Your task to perform on an android device: Empty the shopping cart on newegg. Search for usb-a on newegg, select the first entry, and add it to the cart. Image 0: 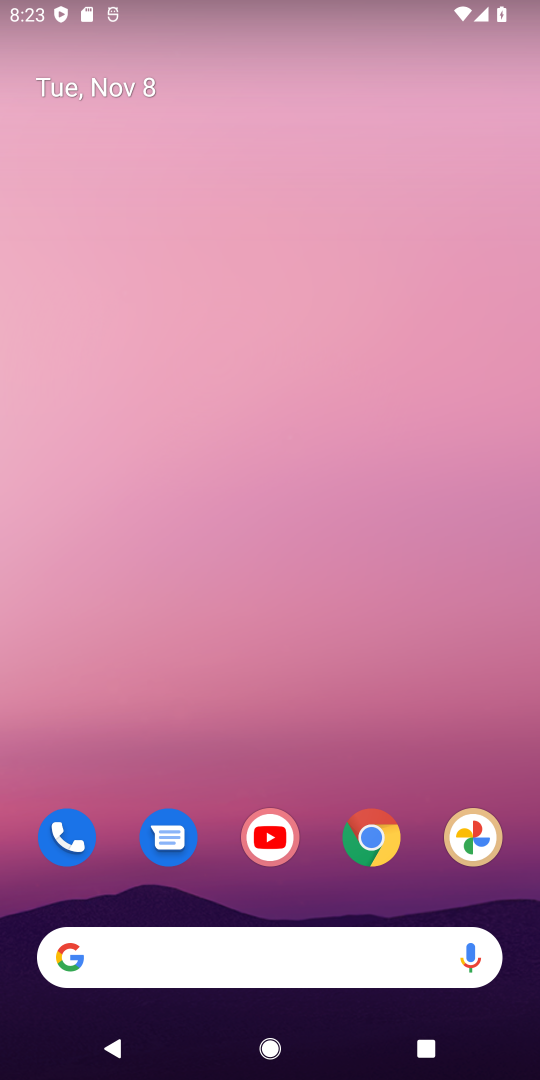
Step 0: click (371, 847)
Your task to perform on an android device: Empty the shopping cart on newegg. Search for usb-a on newegg, select the first entry, and add it to the cart. Image 1: 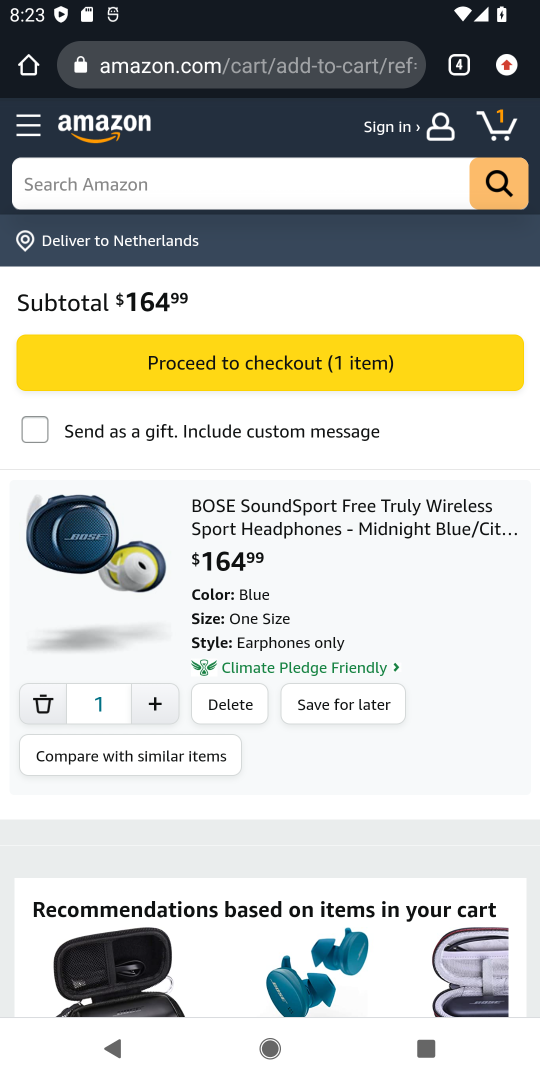
Step 1: click (459, 53)
Your task to perform on an android device: Empty the shopping cart on newegg. Search for usb-a on newegg, select the first entry, and add it to the cart. Image 2: 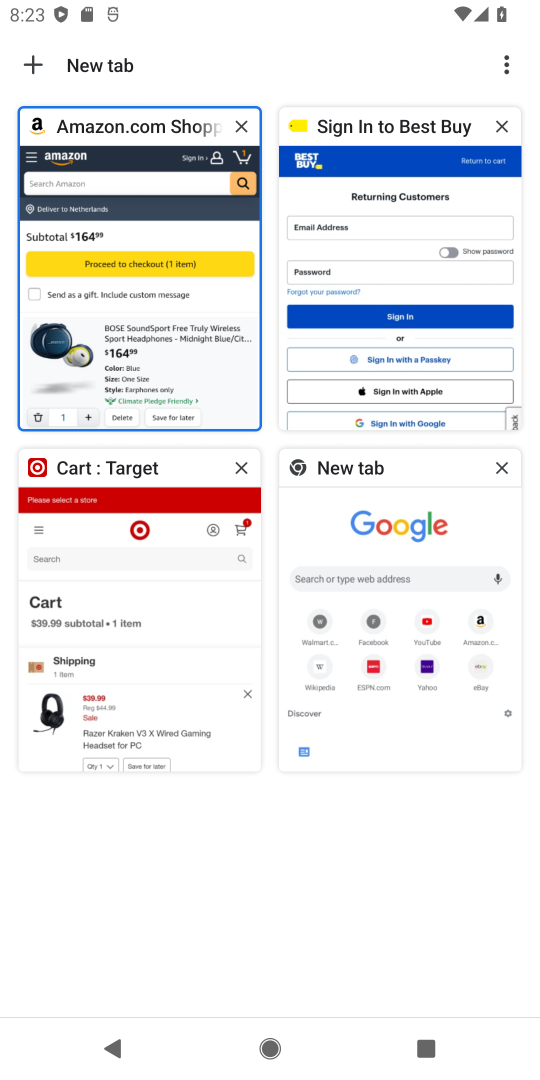
Step 2: click (347, 617)
Your task to perform on an android device: Empty the shopping cart on newegg. Search for usb-a on newegg, select the first entry, and add it to the cart. Image 3: 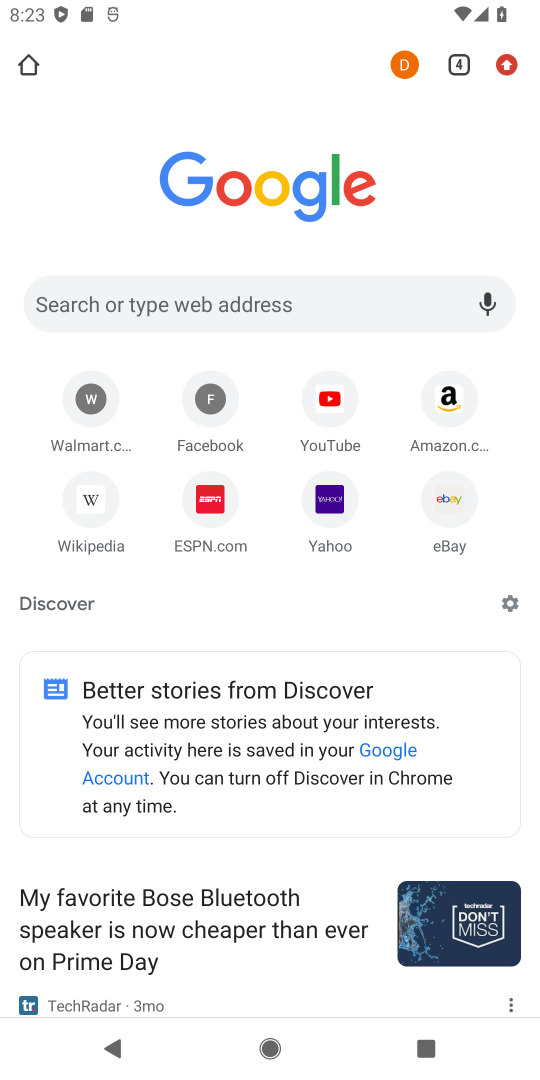
Step 3: click (328, 296)
Your task to perform on an android device: Empty the shopping cart on newegg. Search for usb-a on newegg, select the first entry, and add it to the cart. Image 4: 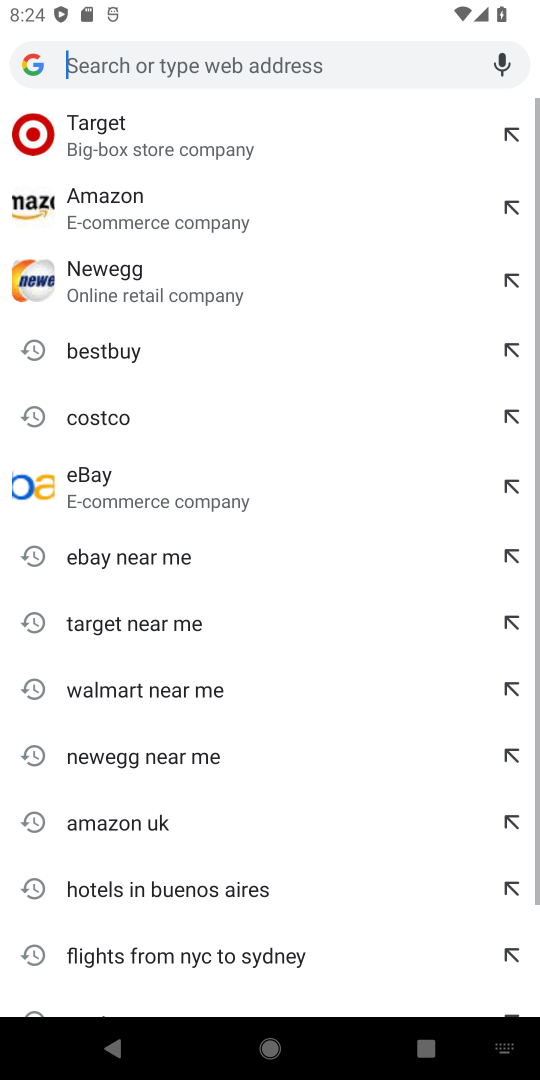
Step 4: click (90, 291)
Your task to perform on an android device: Empty the shopping cart on newegg. Search for usb-a on newegg, select the first entry, and add it to the cart. Image 5: 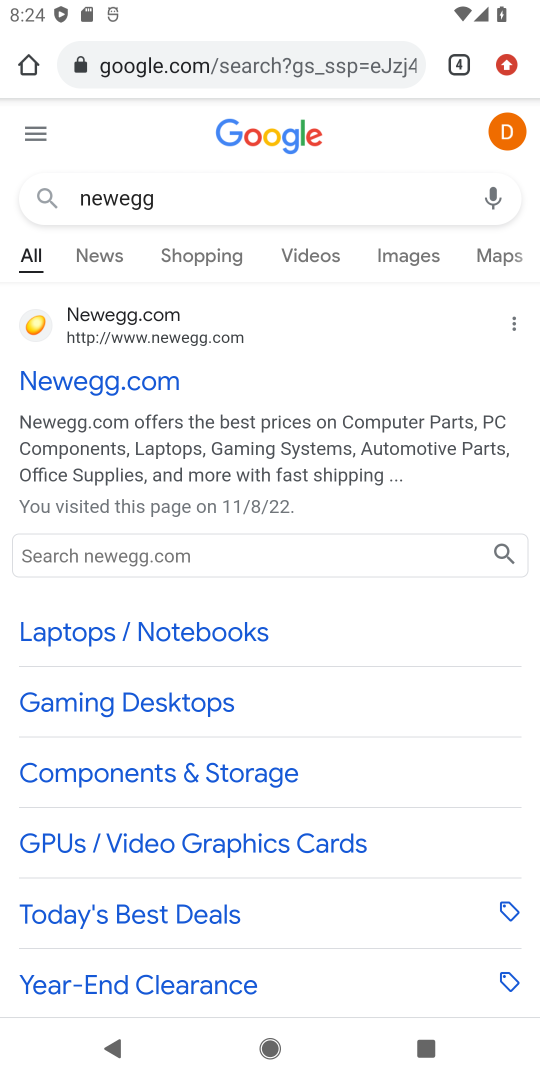
Step 5: click (36, 547)
Your task to perform on an android device: Empty the shopping cart on newegg. Search for usb-a on newegg, select the first entry, and add it to the cart. Image 6: 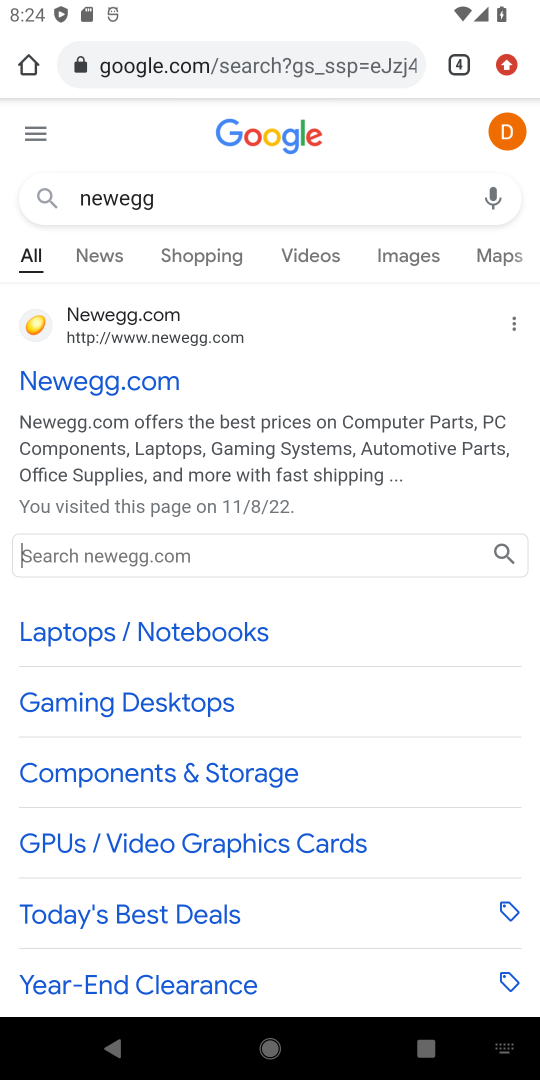
Step 6: type "usb-a"
Your task to perform on an android device: Empty the shopping cart on newegg. Search for usb-a on newegg, select the first entry, and add it to the cart. Image 7: 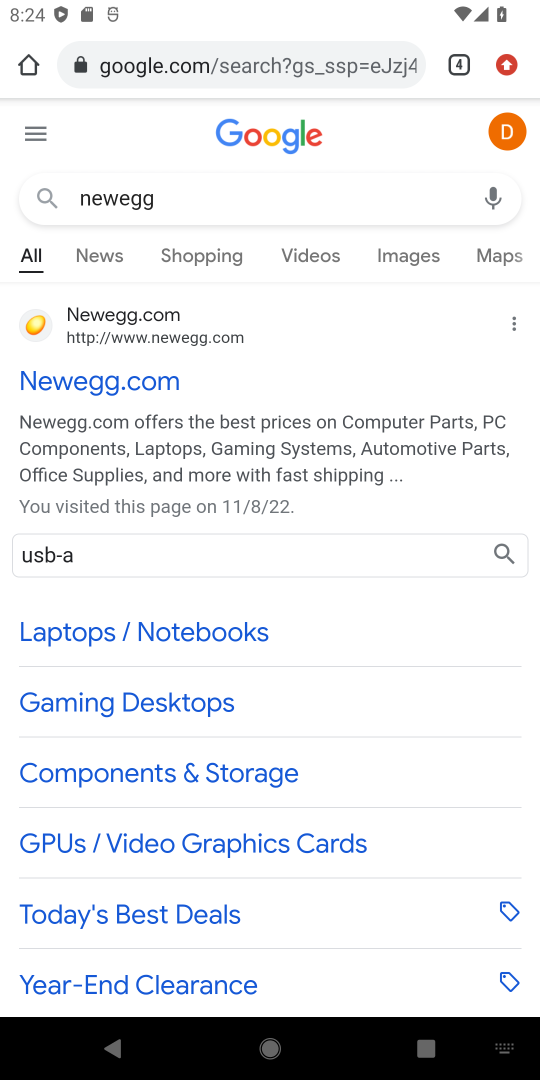
Step 7: click (504, 554)
Your task to perform on an android device: Empty the shopping cart on newegg. Search for usb-a on newegg, select the first entry, and add it to the cart. Image 8: 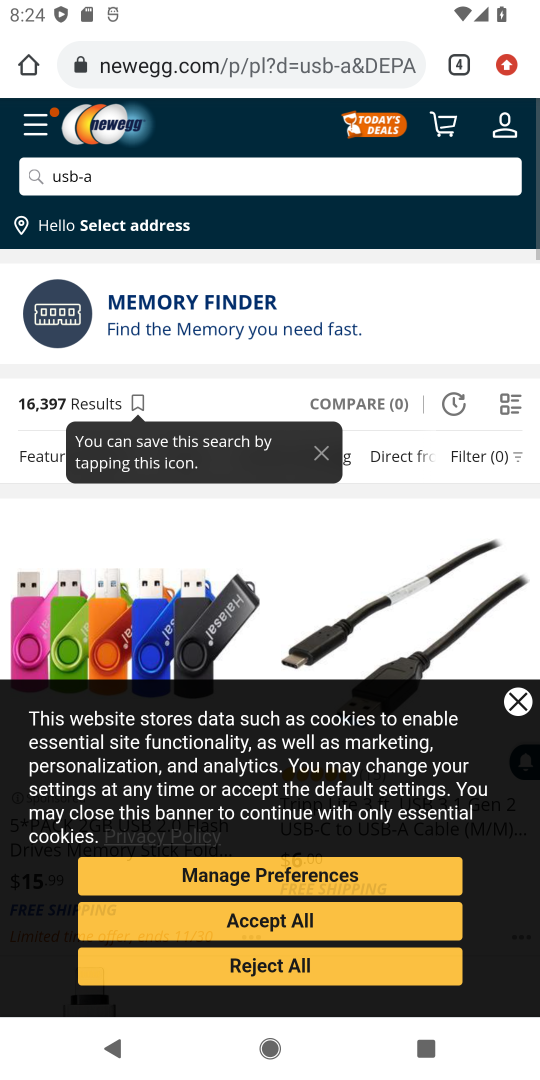
Step 8: click (181, 835)
Your task to perform on an android device: Empty the shopping cart on newegg. Search for usb-a on newegg, select the first entry, and add it to the cart. Image 9: 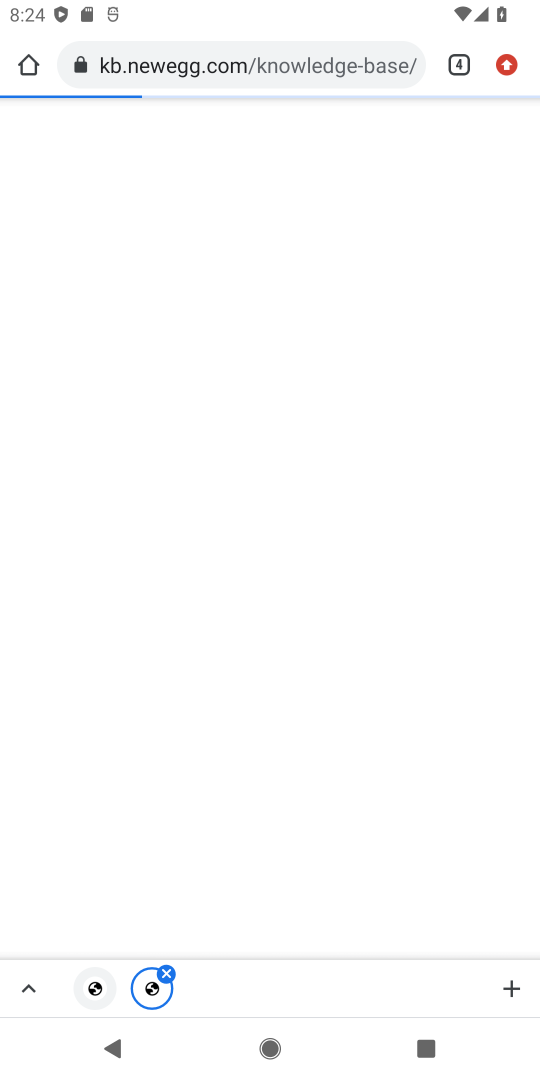
Step 9: click (515, 704)
Your task to perform on an android device: Empty the shopping cart on newegg. Search for usb-a on newegg, select the first entry, and add it to the cart. Image 10: 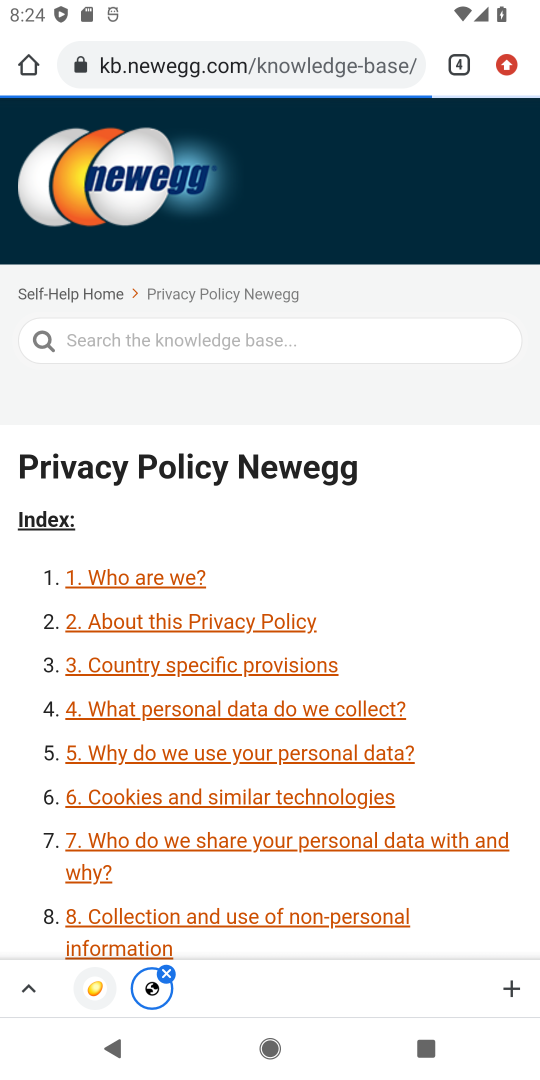
Step 10: press back button
Your task to perform on an android device: Empty the shopping cart on newegg. Search for usb-a on newegg, select the first entry, and add it to the cart. Image 11: 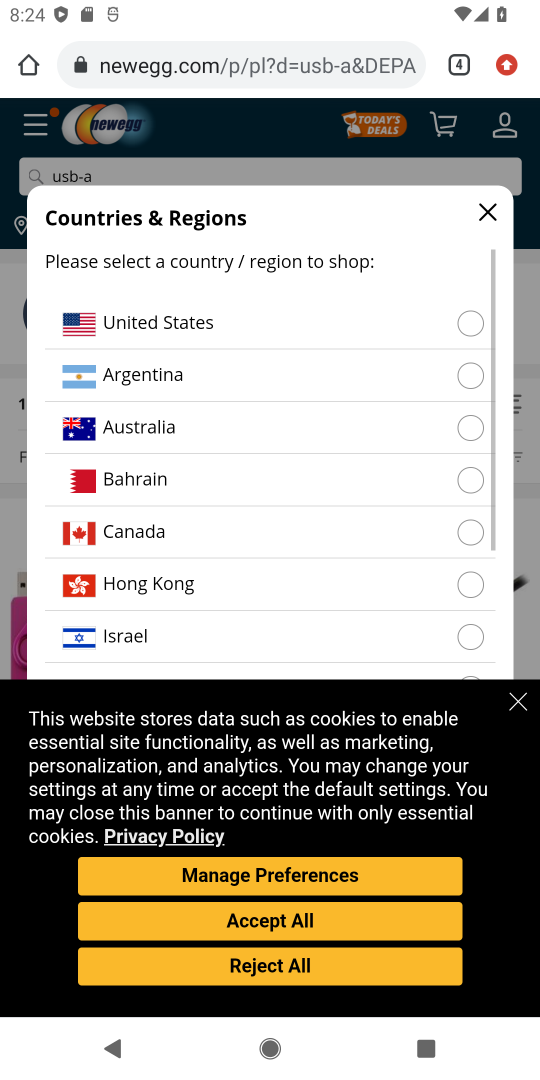
Step 11: click (331, 928)
Your task to perform on an android device: Empty the shopping cart on newegg. Search for usb-a on newegg, select the first entry, and add it to the cart. Image 12: 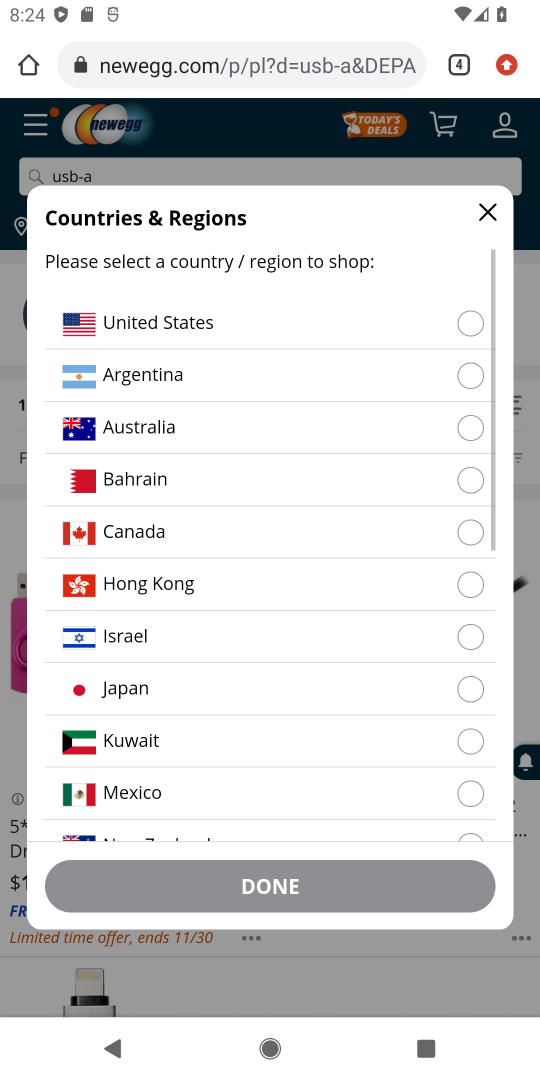
Step 12: click (471, 318)
Your task to perform on an android device: Empty the shopping cart on newegg. Search for usb-a on newegg, select the first entry, and add it to the cart. Image 13: 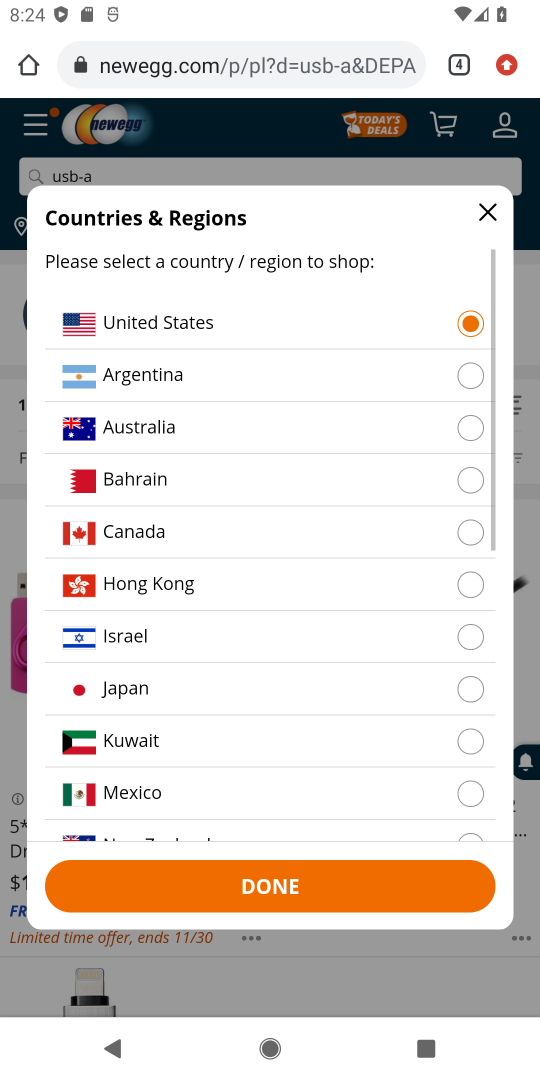
Step 13: click (279, 890)
Your task to perform on an android device: Empty the shopping cart on newegg. Search for usb-a on newegg, select the first entry, and add it to the cart. Image 14: 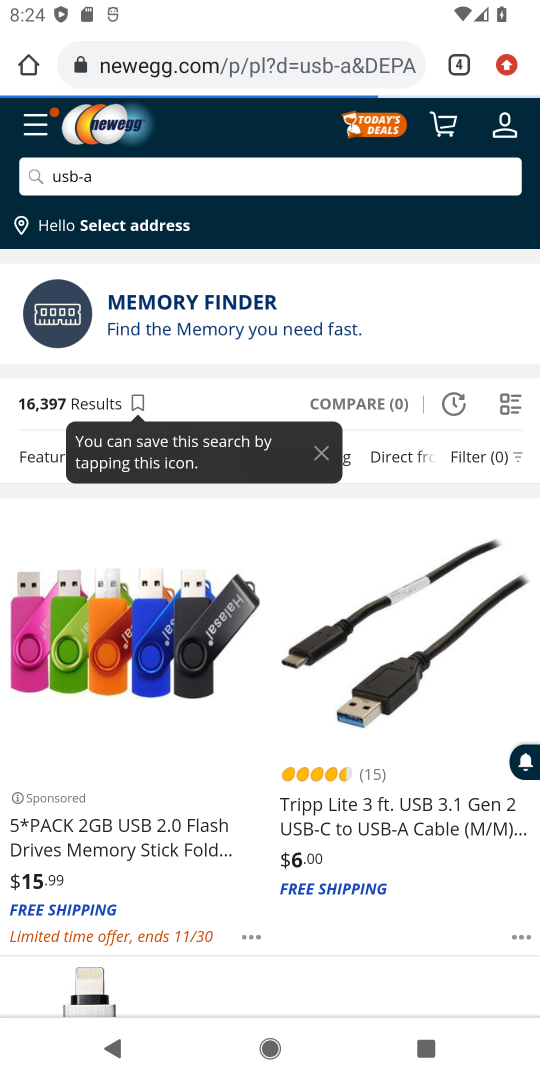
Step 14: click (378, 839)
Your task to perform on an android device: Empty the shopping cart on newegg. Search for usb-a on newegg, select the first entry, and add it to the cart. Image 15: 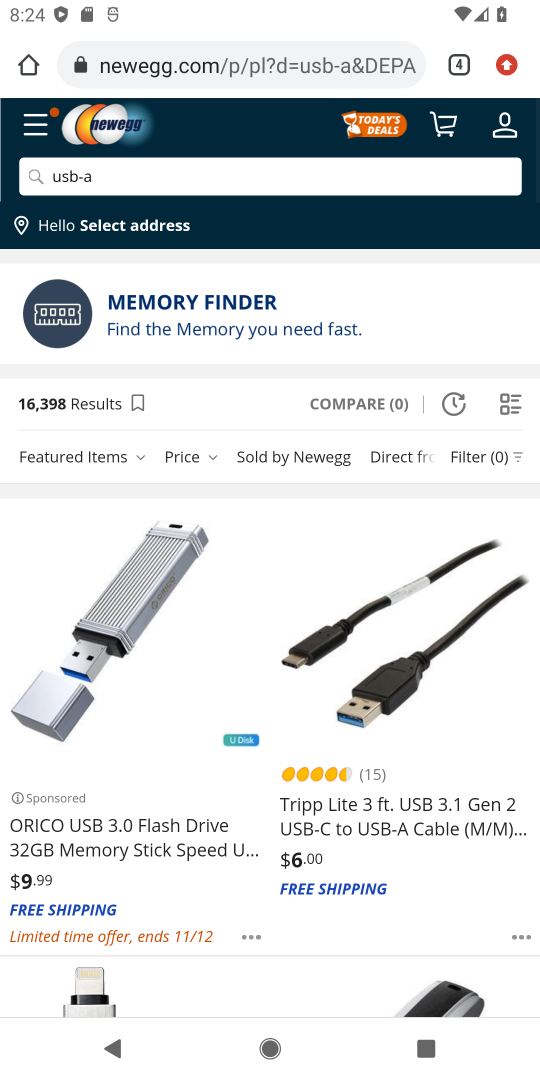
Step 15: click (370, 814)
Your task to perform on an android device: Empty the shopping cart on newegg. Search for usb-a on newegg, select the first entry, and add it to the cart. Image 16: 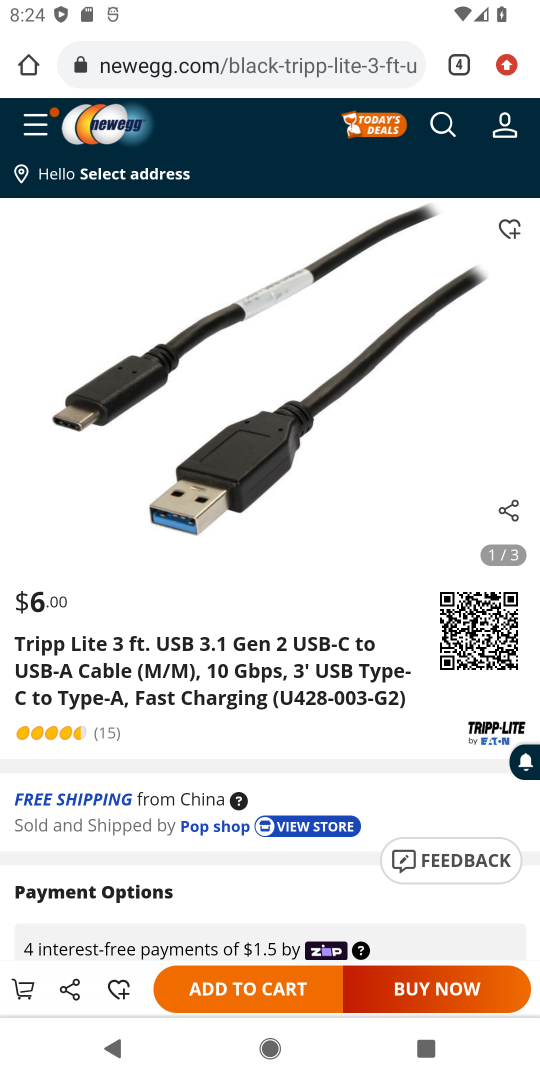
Step 16: click (242, 997)
Your task to perform on an android device: Empty the shopping cart on newegg. Search for usb-a on newegg, select the first entry, and add it to the cart. Image 17: 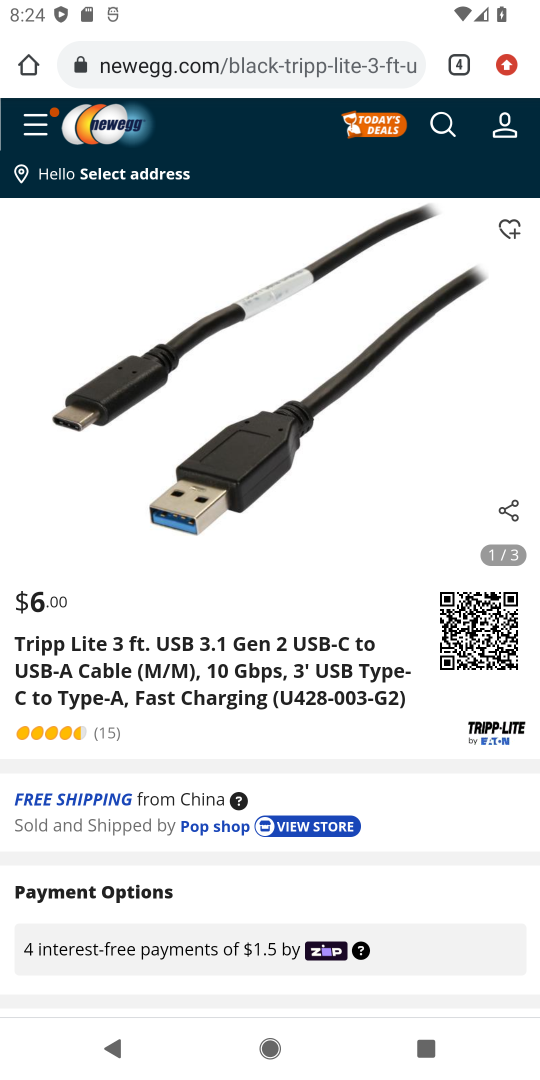
Step 17: task complete